Your task to perform on an android device: set the timer Image 0: 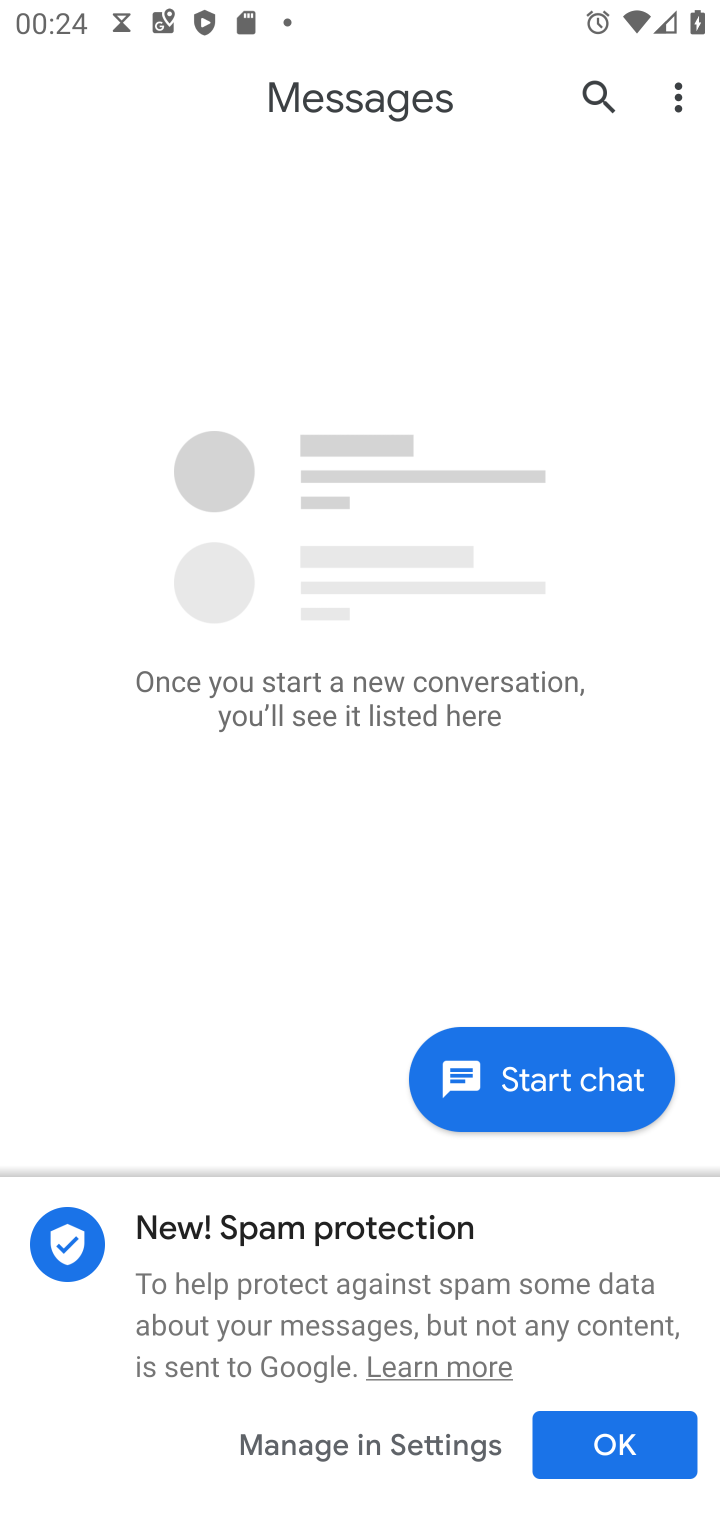
Step 0: press home button
Your task to perform on an android device: set the timer Image 1: 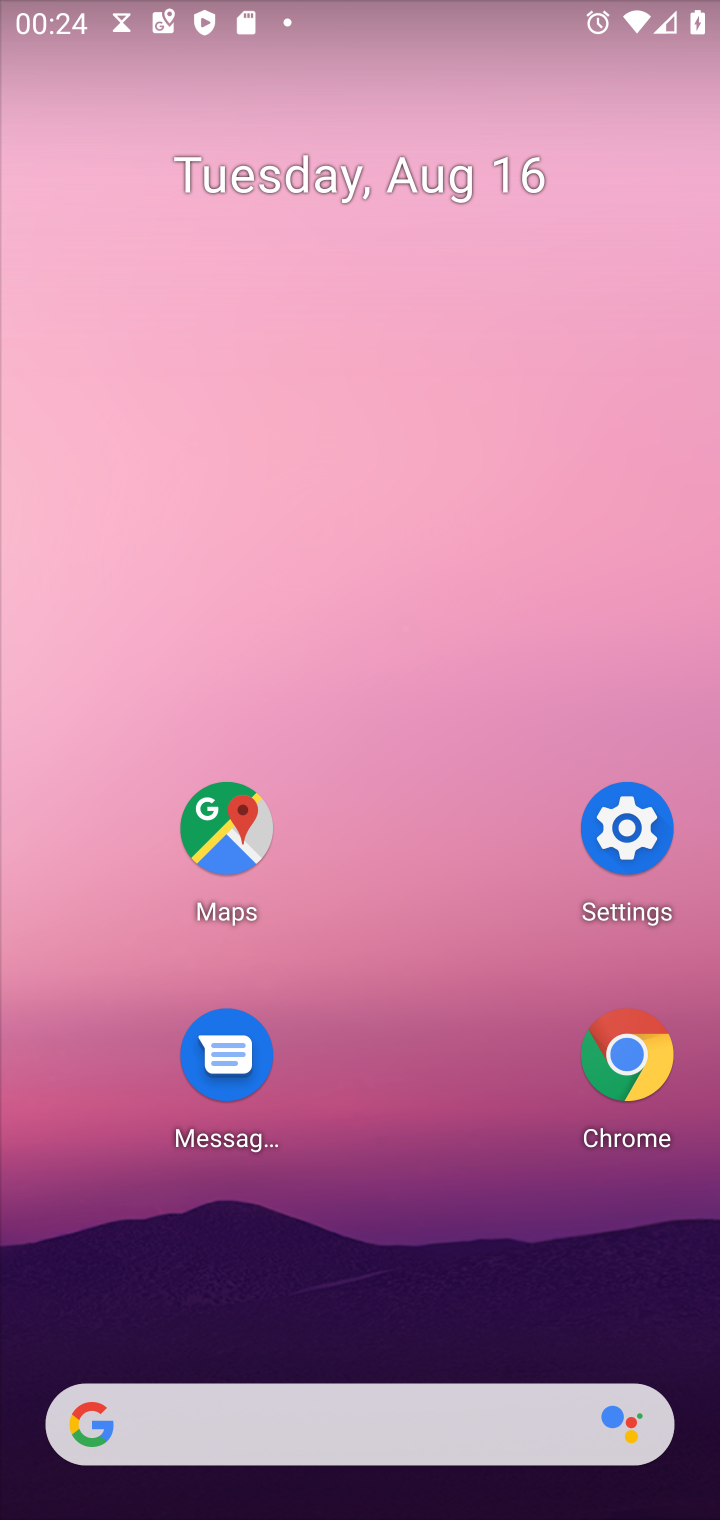
Step 1: drag from (287, 1350) to (596, 223)
Your task to perform on an android device: set the timer Image 2: 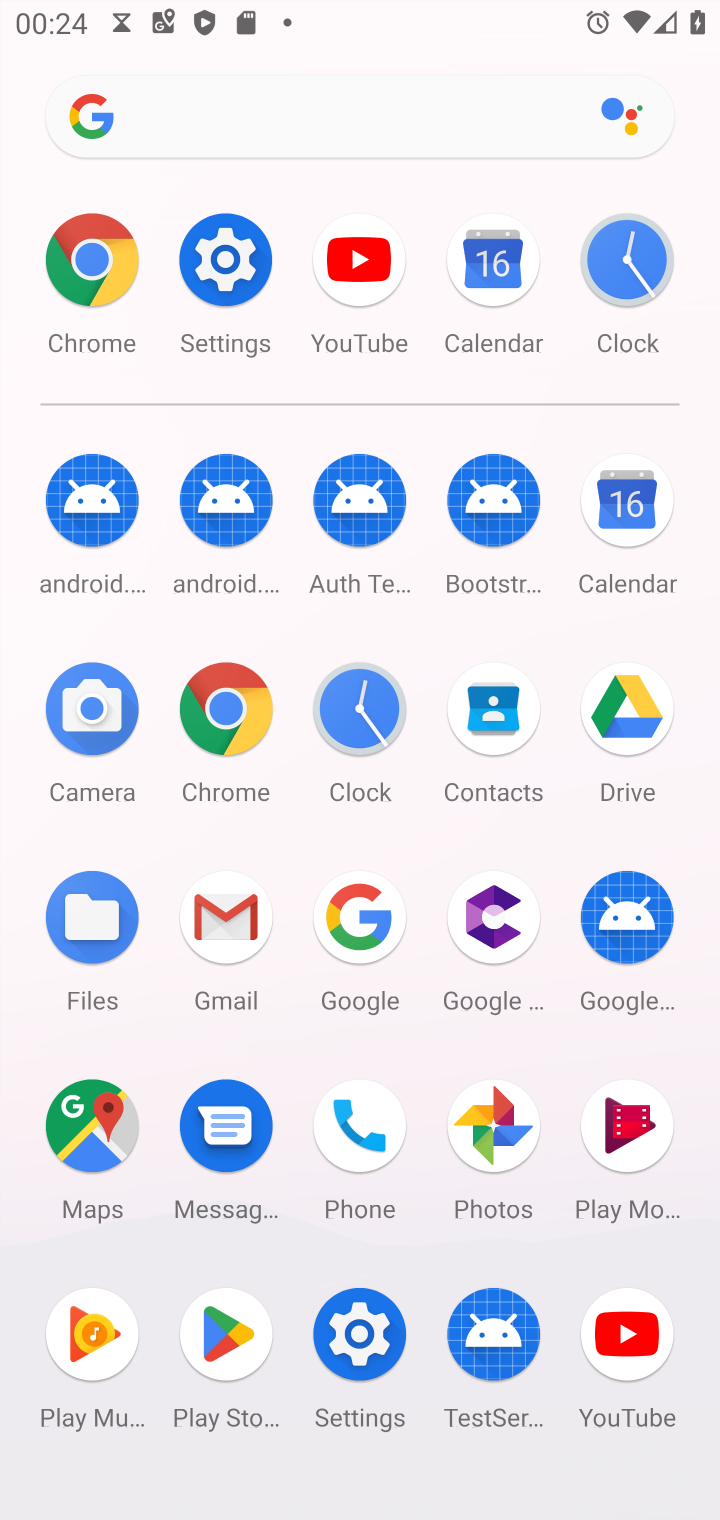
Step 2: click (355, 715)
Your task to perform on an android device: set the timer Image 3: 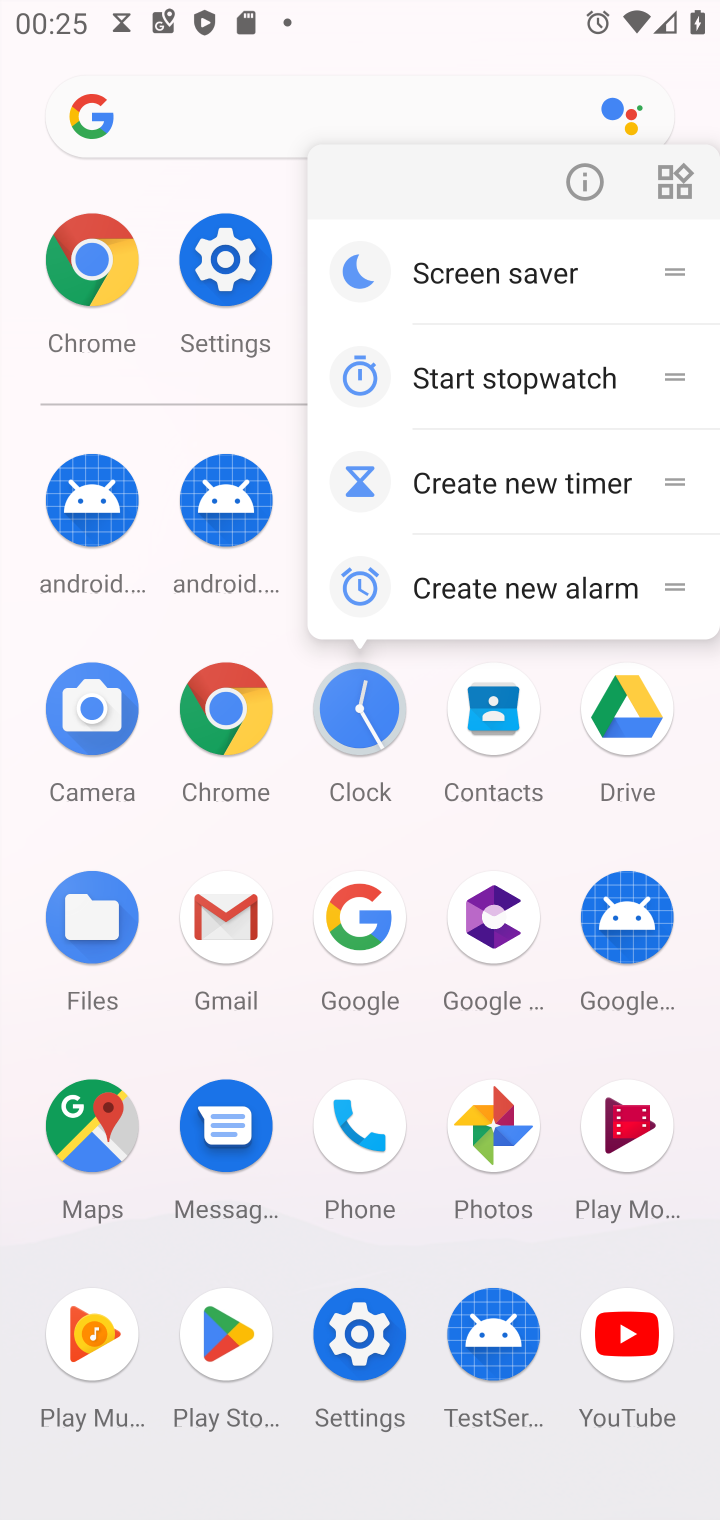
Step 3: click (355, 715)
Your task to perform on an android device: set the timer Image 4: 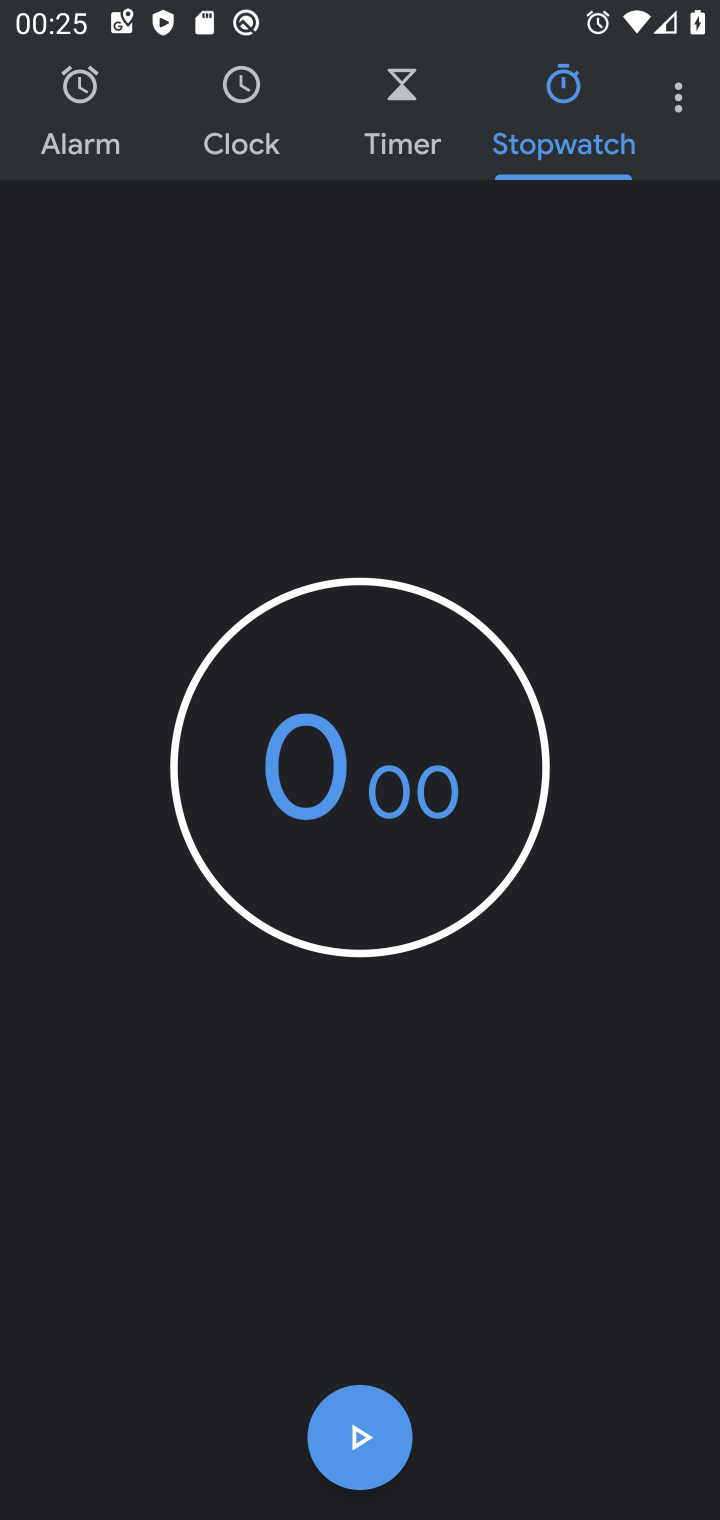
Step 4: click (408, 125)
Your task to perform on an android device: set the timer Image 5: 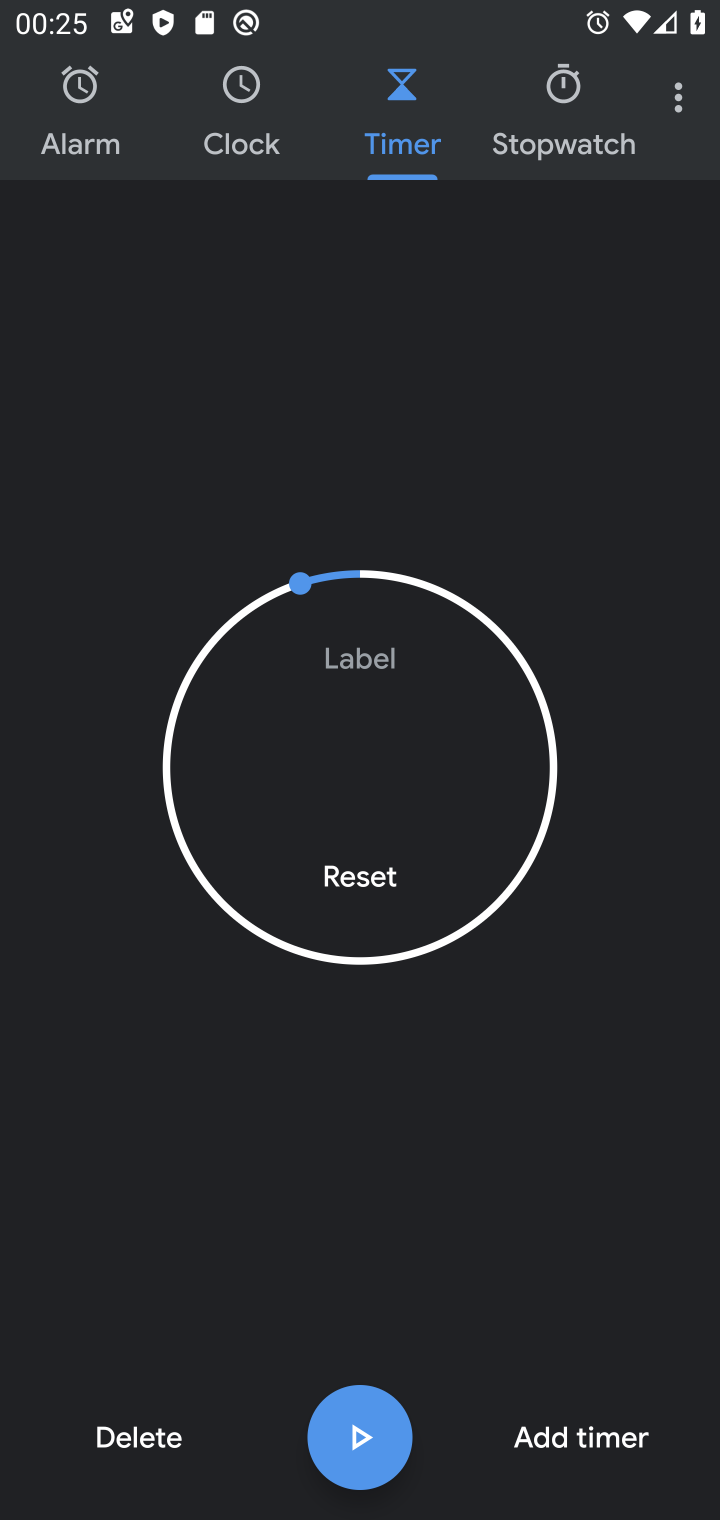
Step 5: task complete